Your task to perform on an android device: uninstall "The Home Depot" Image 0: 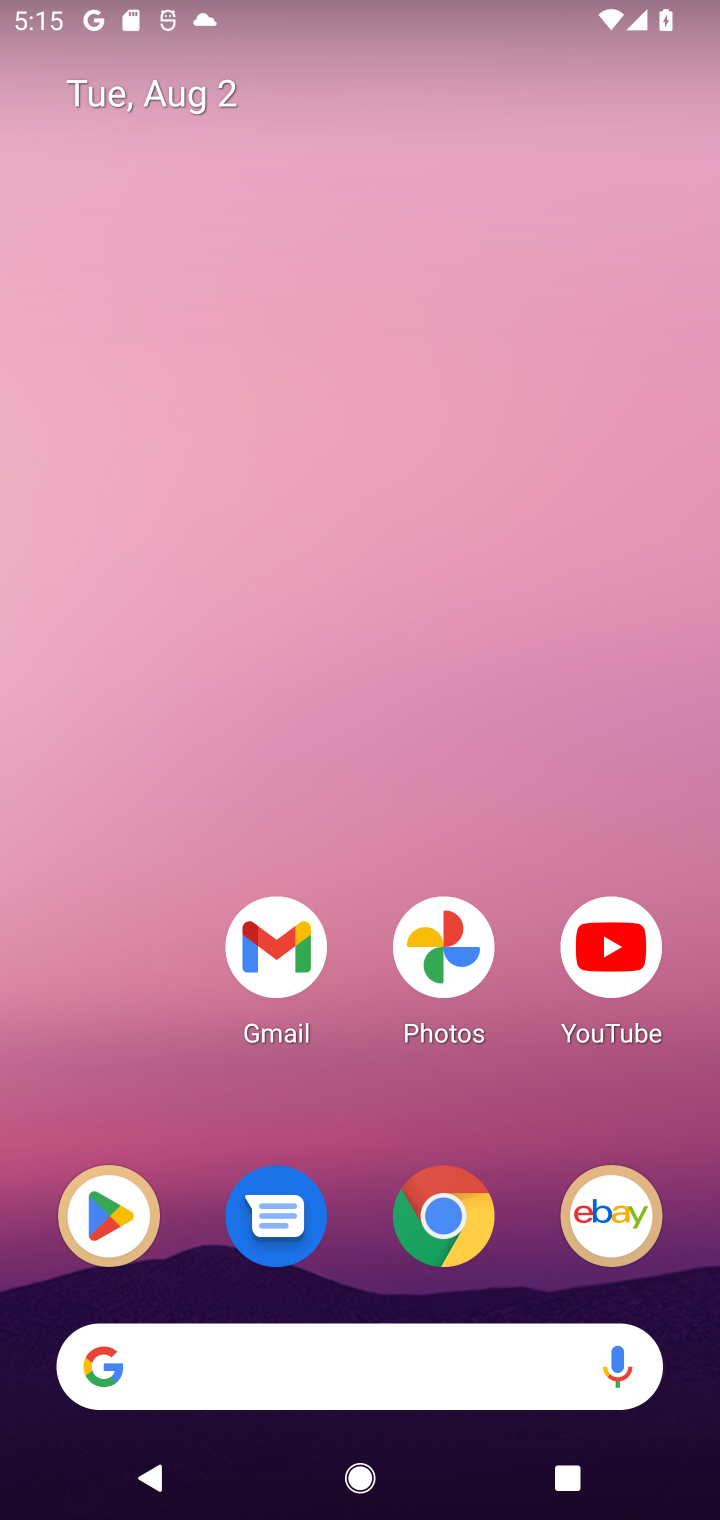
Step 0: click (132, 1189)
Your task to perform on an android device: uninstall "The Home Depot" Image 1: 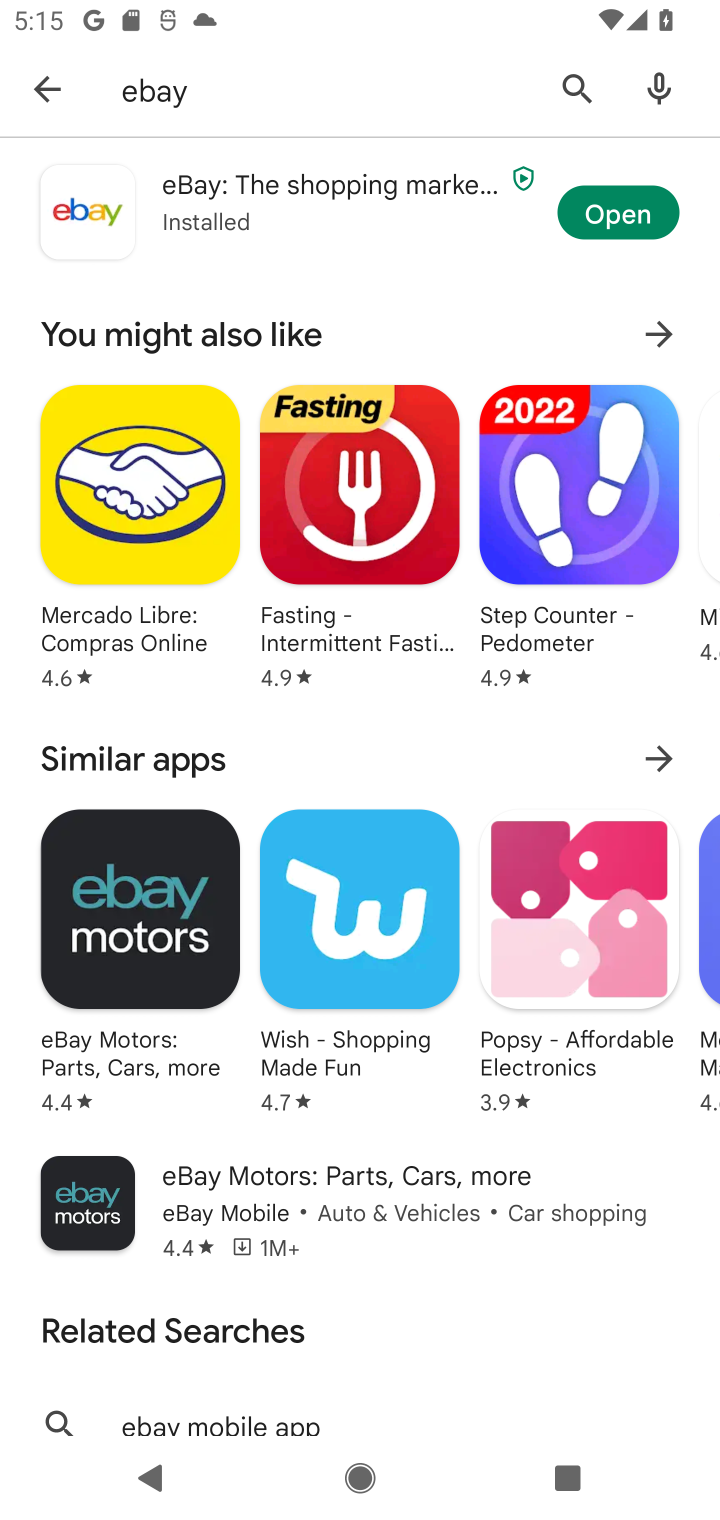
Step 1: click (589, 116)
Your task to perform on an android device: uninstall "The Home Depot" Image 2: 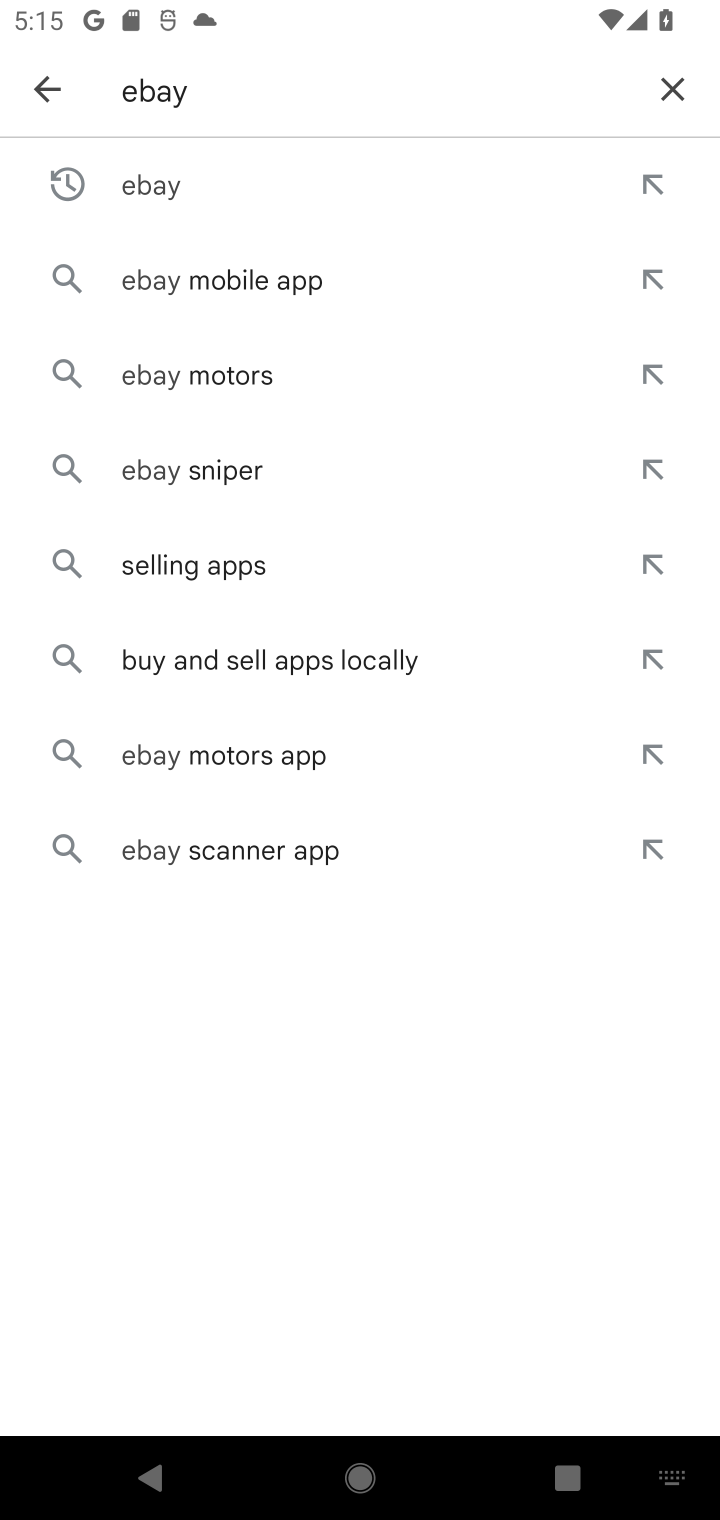
Step 2: click (660, 98)
Your task to perform on an android device: uninstall "The Home Depot" Image 3: 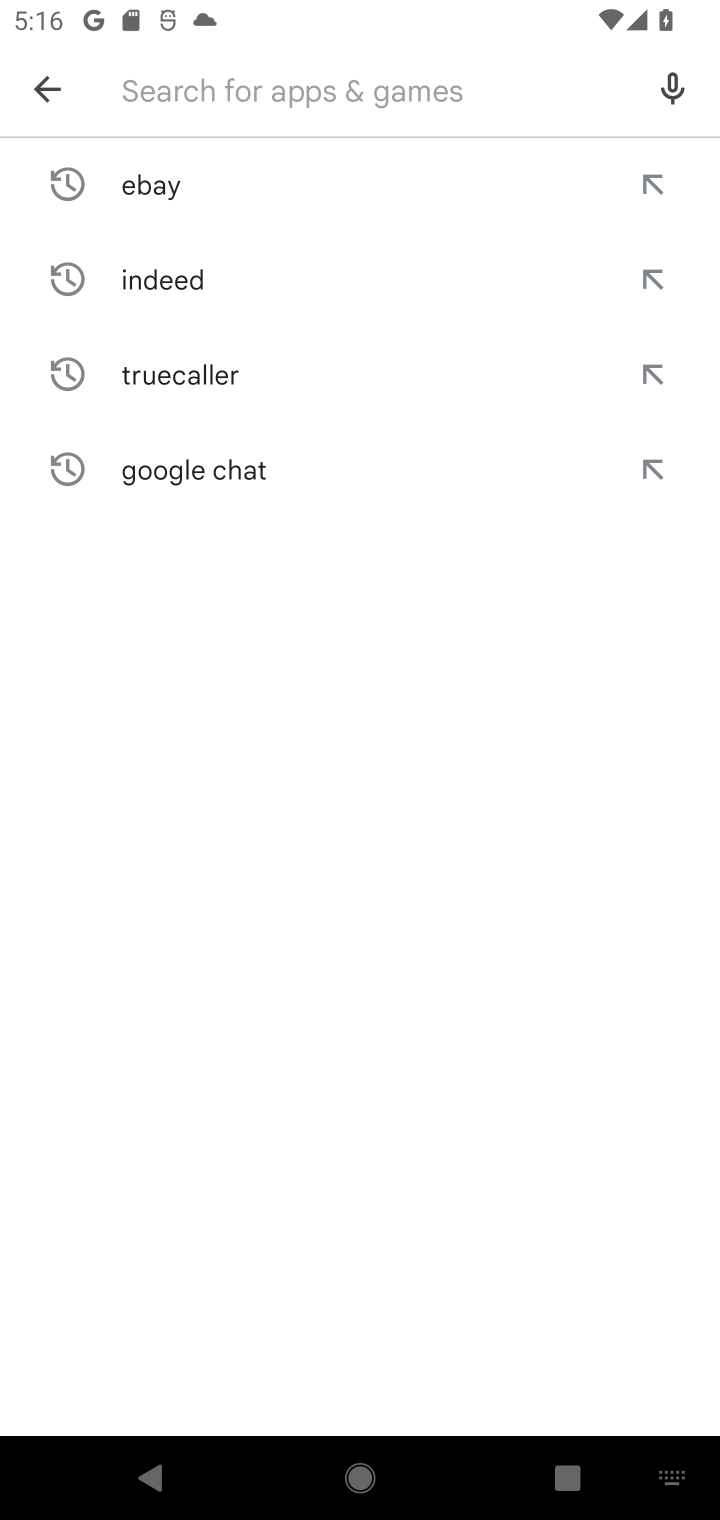
Step 3: type "heme depot"
Your task to perform on an android device: uninstall "The Home Depot" Image 4: 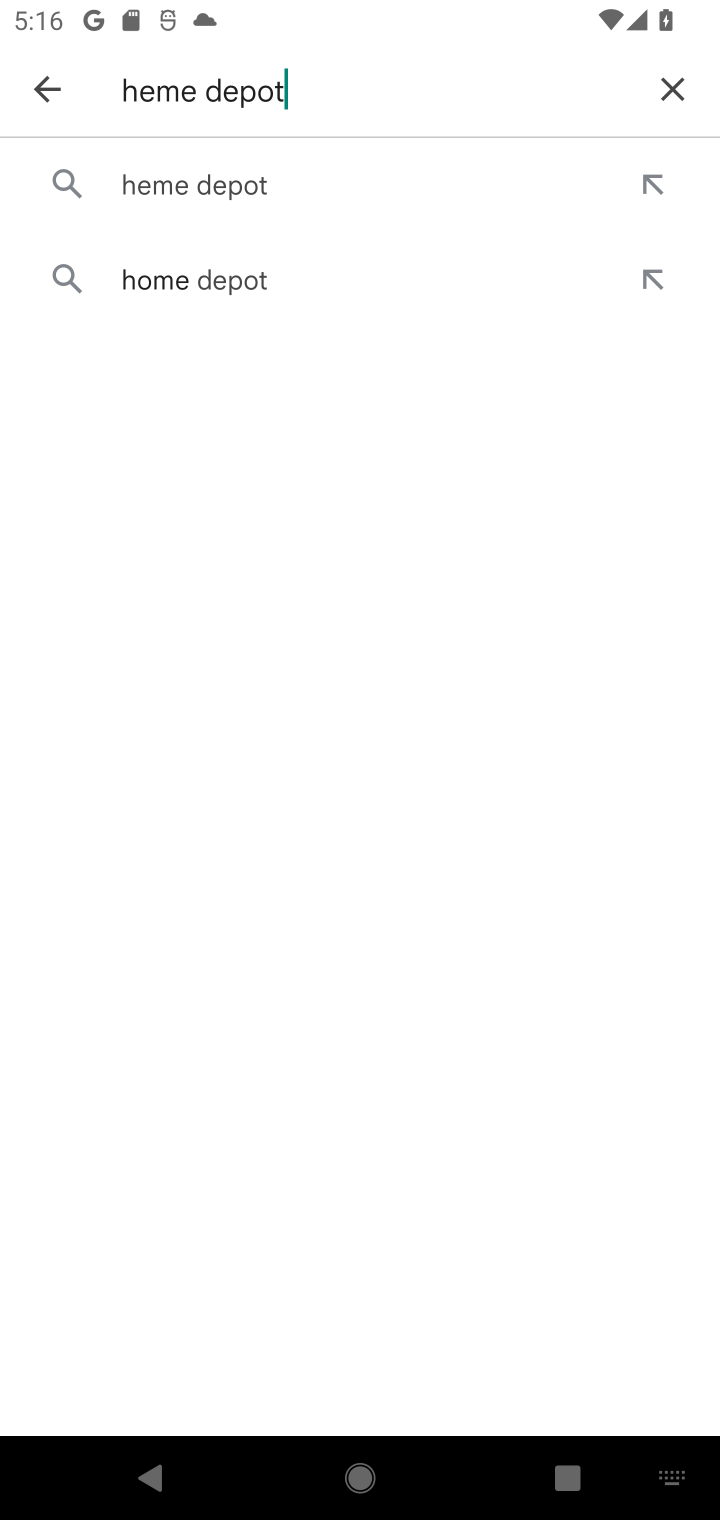
Step 4: click (321, 193)
Your task to perform on an android device: uninstall "The Home Depot" Image 5: 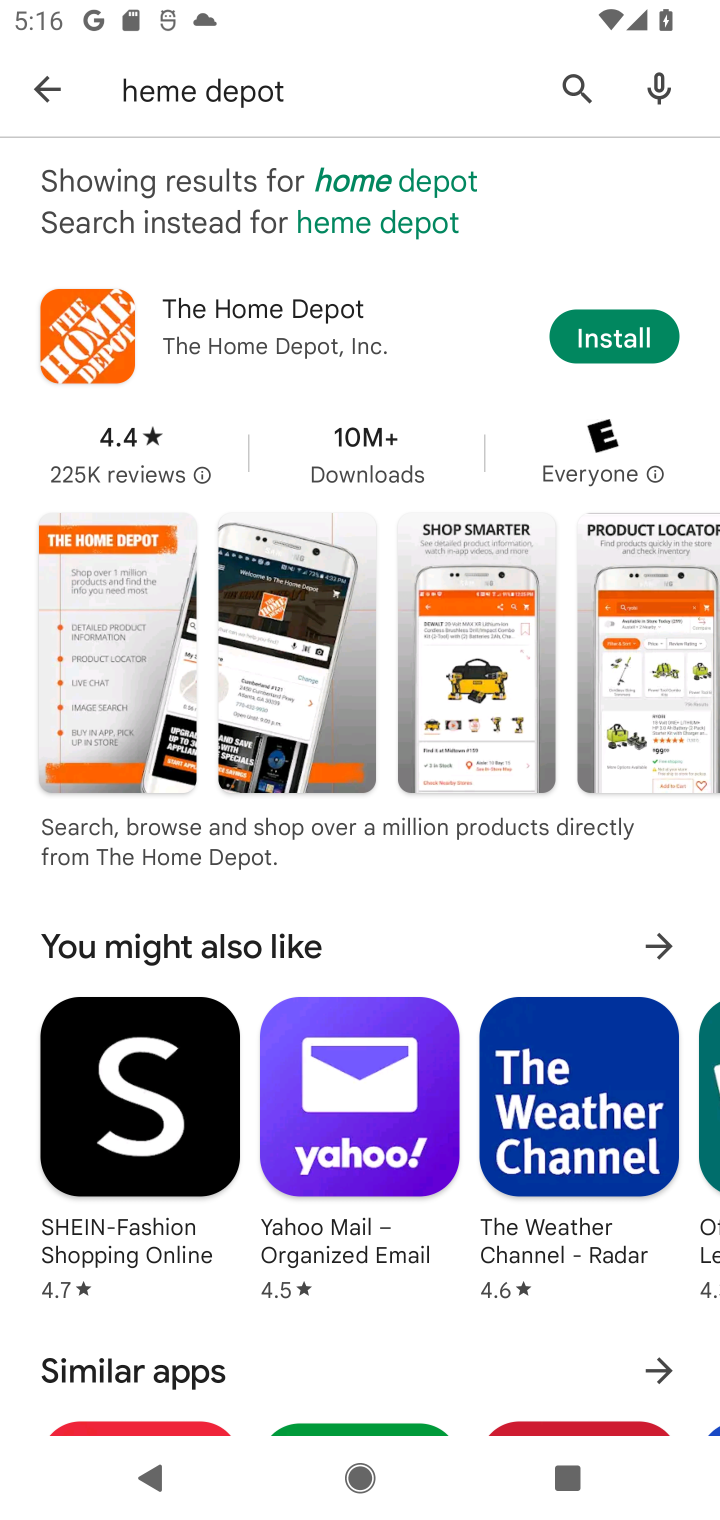
Step 5: click (629, 317)
Your task to perform on an android device: uninstall "The Home Depot" Image 6: 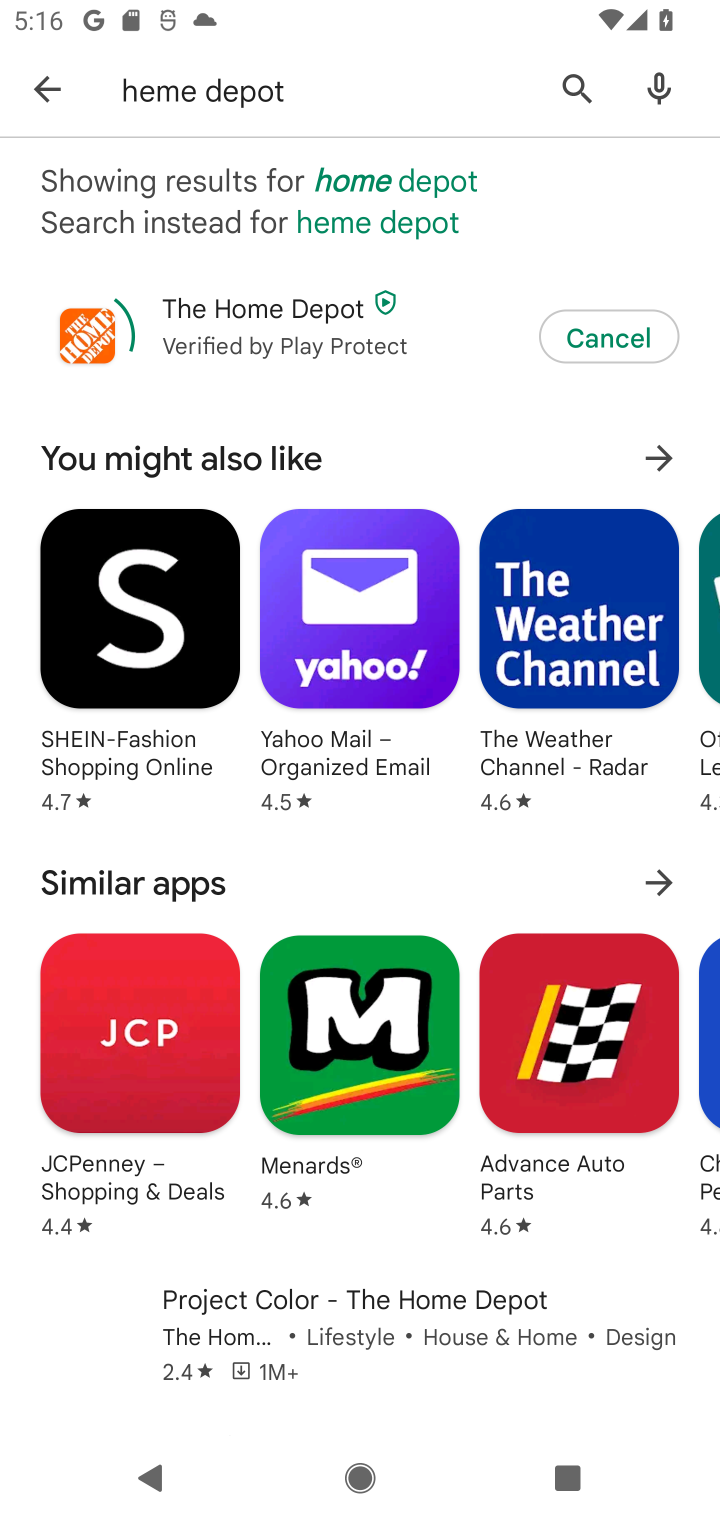
Step 6: task complete